Your task to perform on an android device: Open the phone app and click the voicemail tab. Image 0: 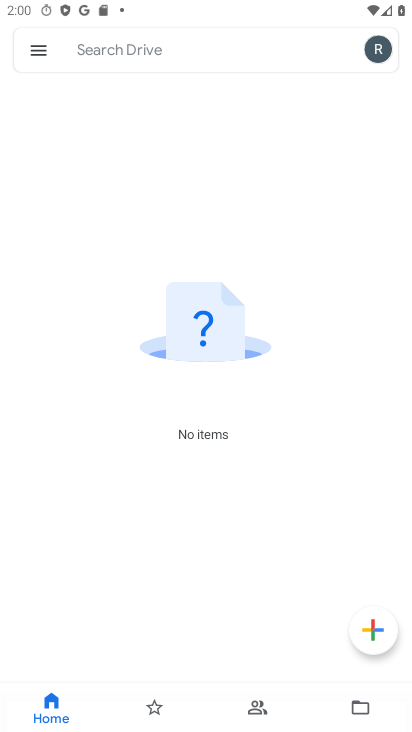
Step 0: press home button
Your task to perform on an android device: Open the phone app and click the voicemail tab. Image 1: 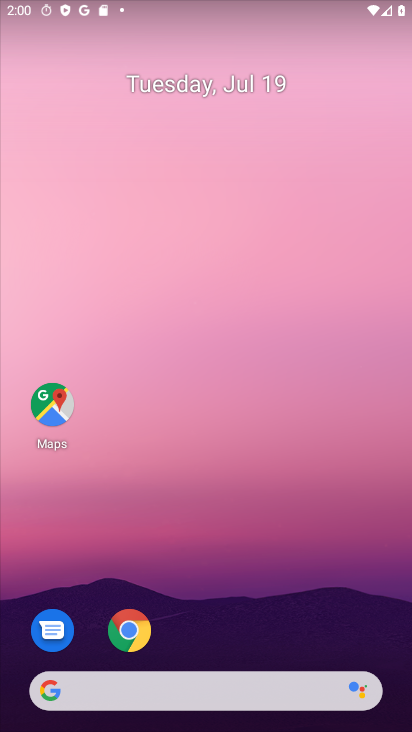
Step 1: drag from (223, 625) to (234, 58)
Your task to perform on an android device: Open the phone app and click the voicemail tab. Image 2: 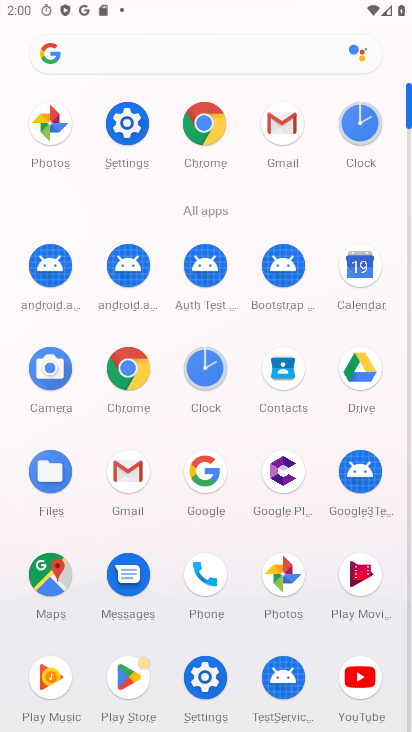
Step 2: click (194, 566)
Your task to perform on an android device: Open the phone app and click the voicemail tab. Image 3: 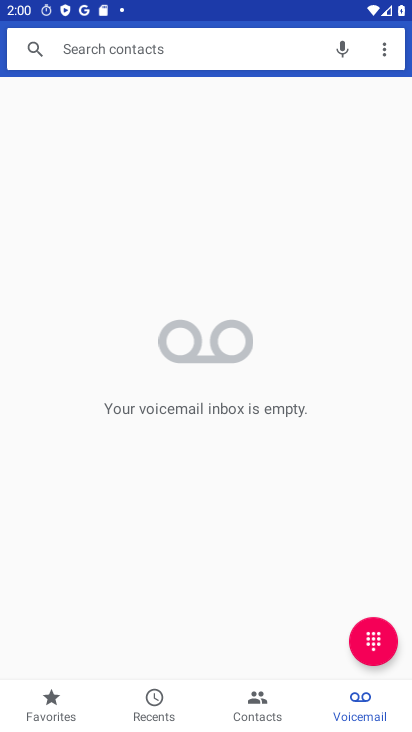
Step 3: click (370, 707)
Your task to perform on an android device: Open the phone app and click the voicemail tab. Image 4: 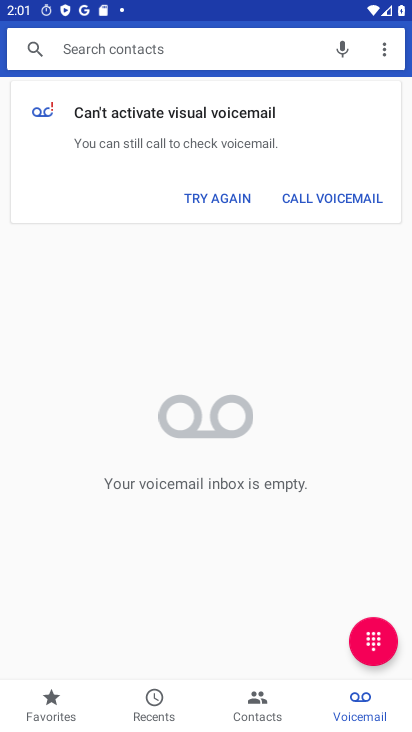
Step 4: task complete